Your task to perform on an android device: When is my next appointment? Image 0: 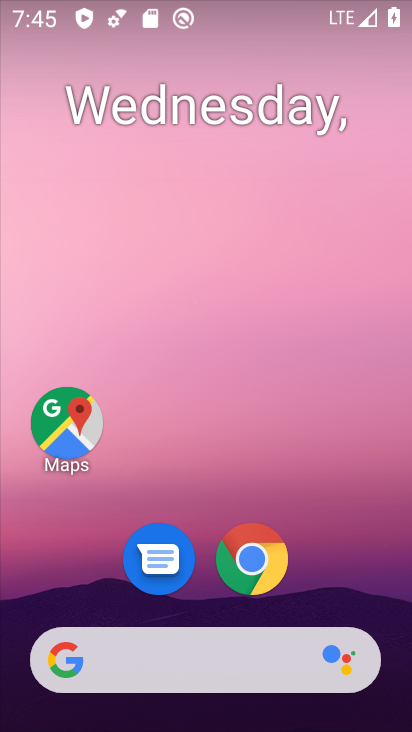
Step 0: drag from (93, 580) to (236, 74)
Your task to perform on an android device: When is my next appointment? Image 1: 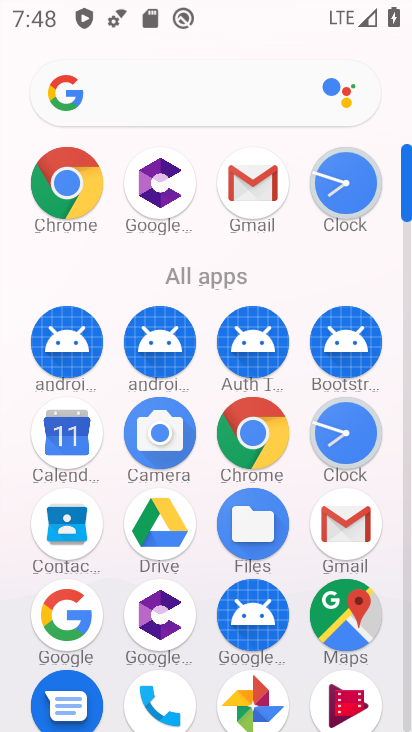
Step 1: click (68, 436)
Your task to perform on an android device: When is my next appointment? Image 2: 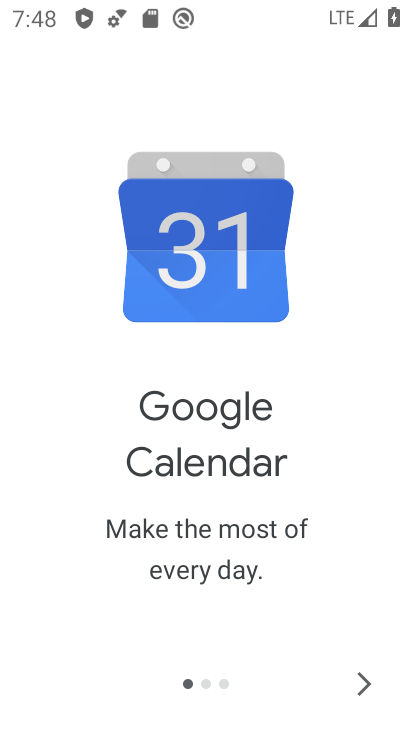
Step 2: click (352, 678)
Your task to perform on an android device: When is my next appointment? Image 3: 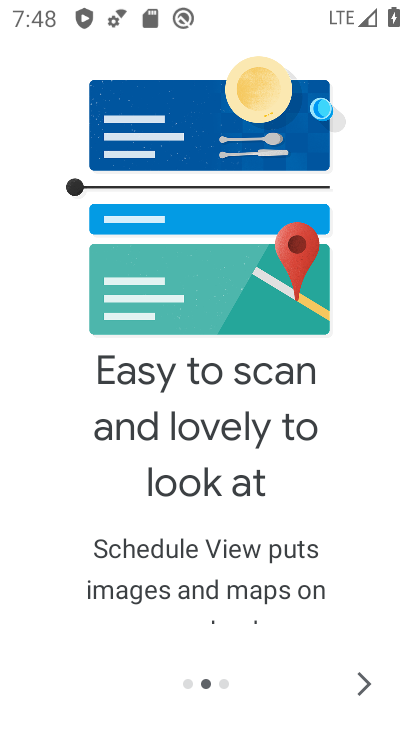
Step 3: click (361, 696)
Your task to perform on an android device: When is my next appointment? Image 4: 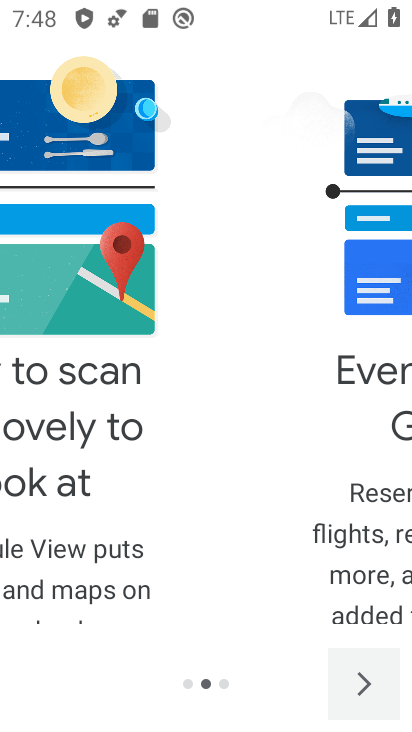
Step 4: click (361, 696)
Your task to perform on an android device: When is my next appointment? Image 5: 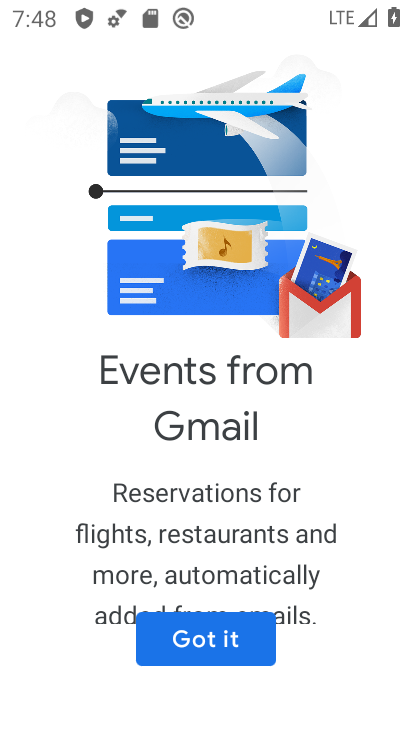
Step 5: click (250, 649)
Your task to perform on an android device: When is my next appointment? Image 6: 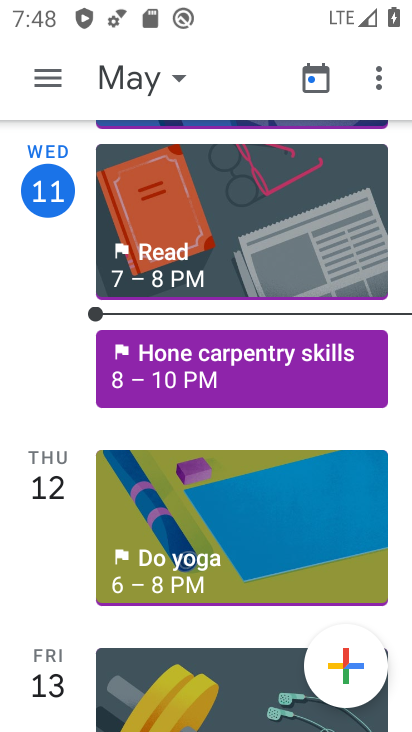
Step 6: drag from (218, 609) to (244, 238)
Your task to perform on an android device: When is my next appointment? Image 7: 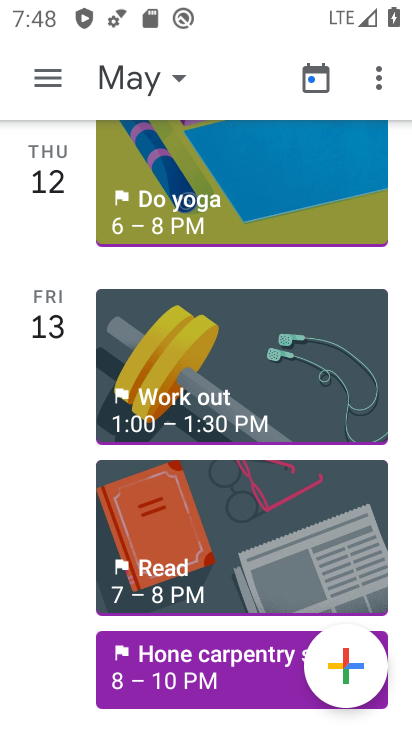
Step 7: drag from (205, 641) to (227, 374)
Your task to perform on an android device: When is my next appointment? Image 8: 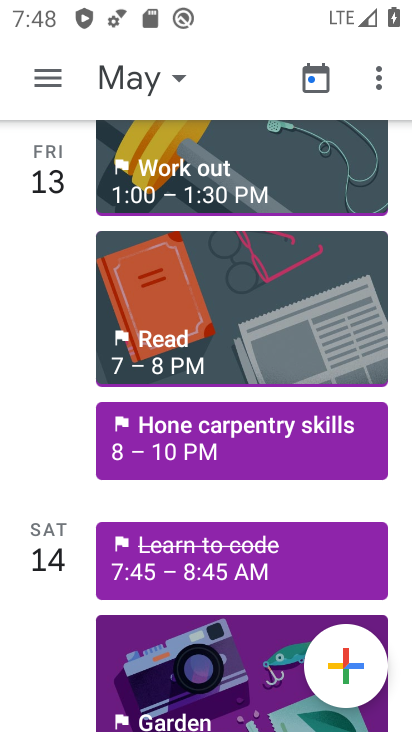
Step 8: drag from (176, 666) to (252, 278)
Your task to perform on an android device: When is my next appointment? Image 9: 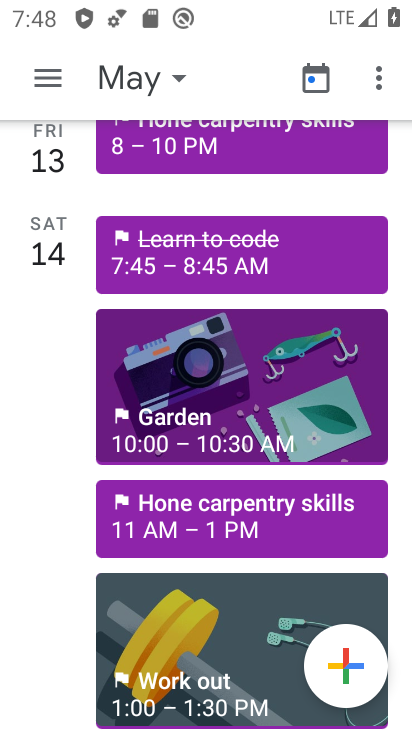
Step 9: drag from (196, 702) to (282, 129)
Your task to perform on an android device: When is my next appointment? Image 10: 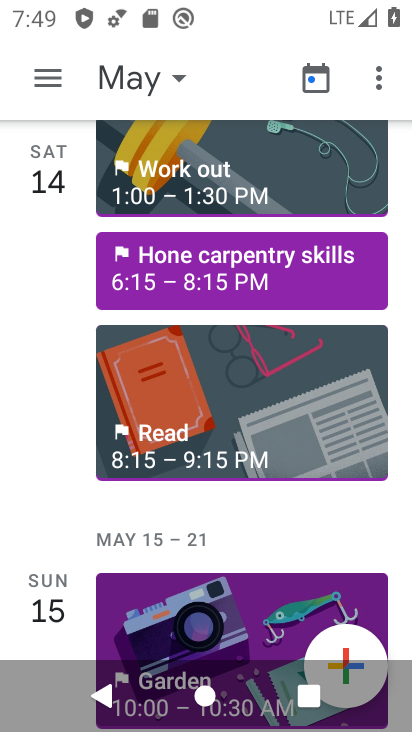
Step 10: drag from (210, 654) to (278, 158)
Your task to perform on an android device: When is my next appointment? Image 11: 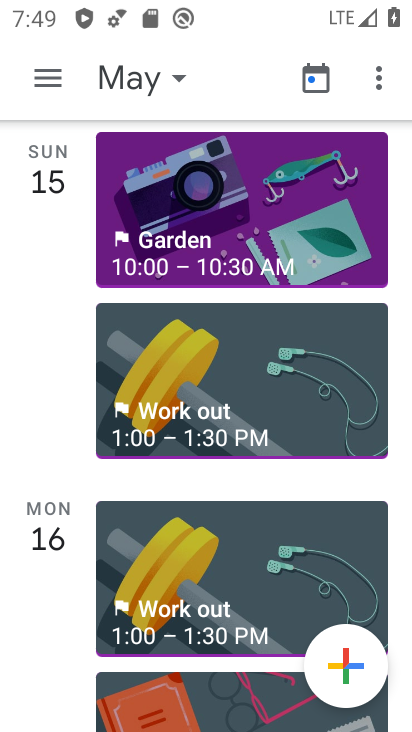
Step 11: drag from (197, 606) to (243, 281)
Your task to perform on an android device: When is my next appointment? Image 12: 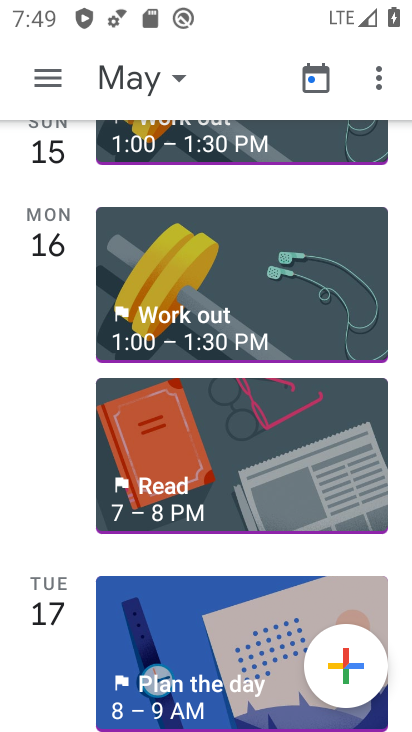
Step 12: click (202, 292)
Your task to perform on an android device: When is my next appointment? Image 13: 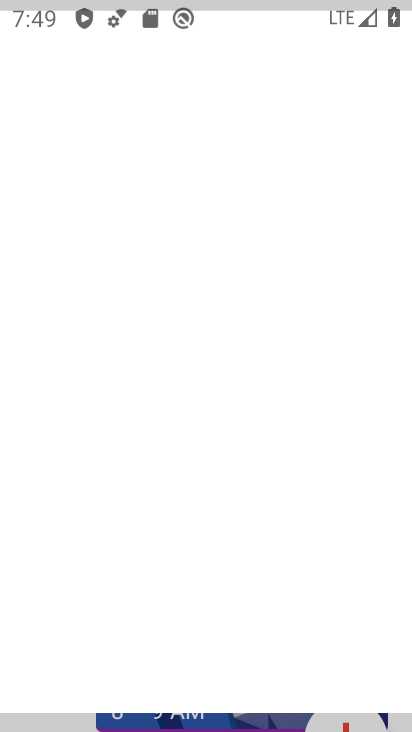
Step 13: task complete